Your task to perform on an android device: install app "Expedia: Hotels, Flights & Car" Image 0: 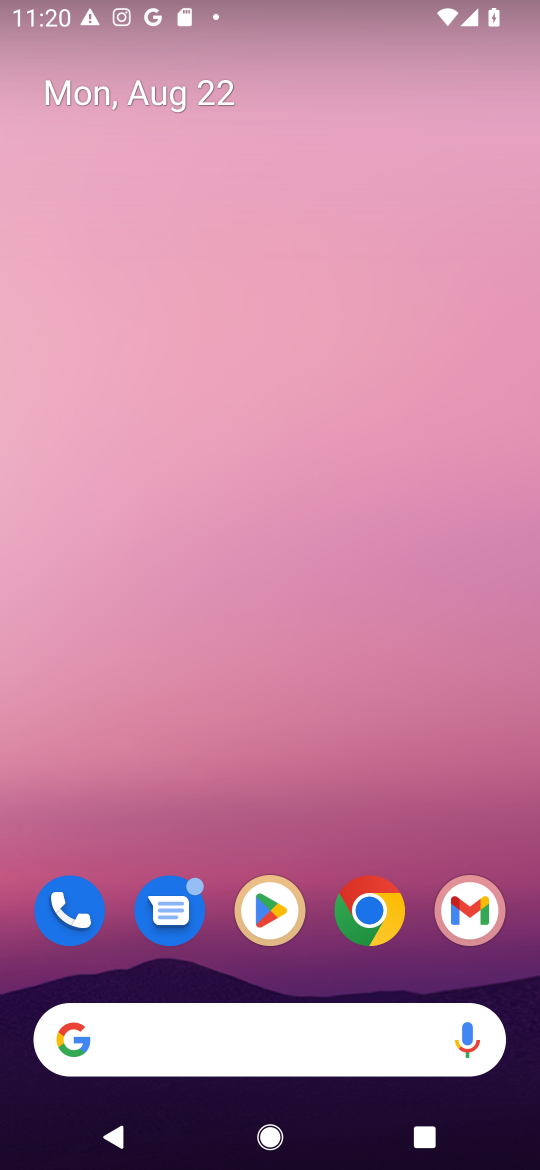
Step 0: click (262, 880)
Your task to perform on an android device: install app "Expedia: Hotels, Flights & Car" Image 1: 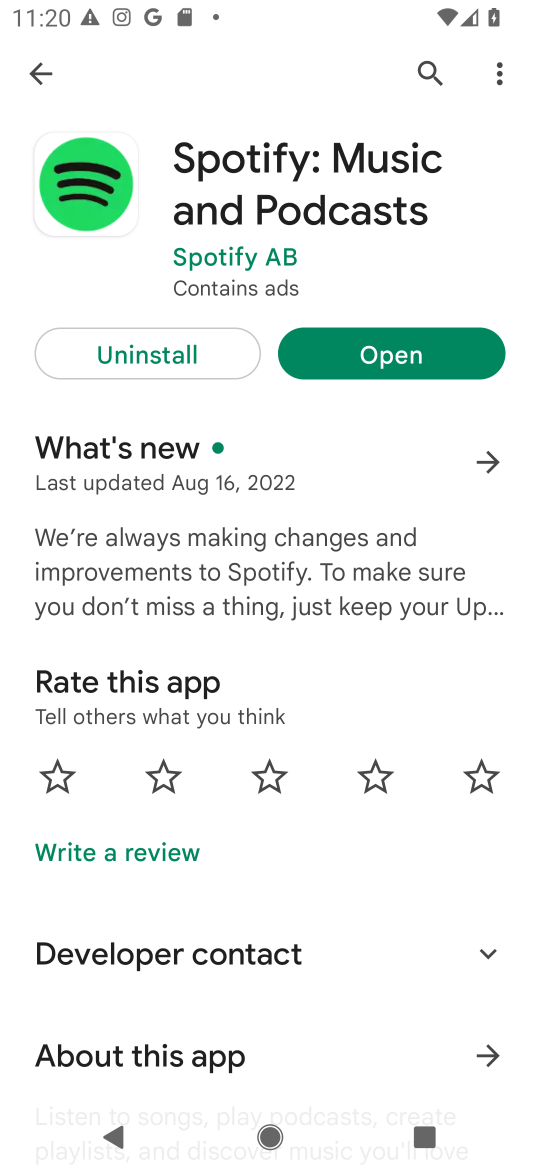
Step 1: task complete